Your task to perform on an android device: Open Youtube and go to the subscriptions tab Image 0: 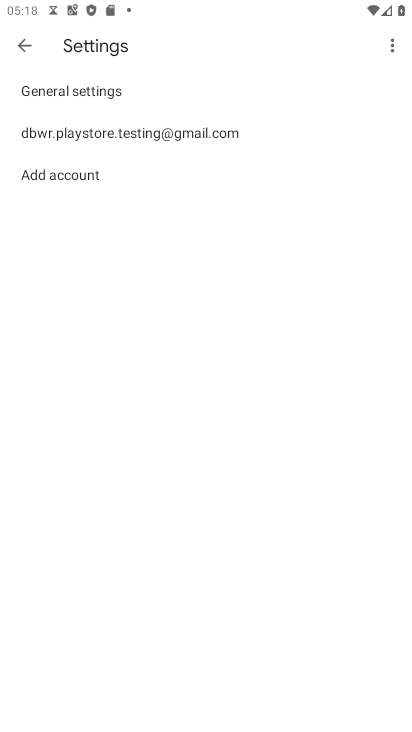
Step 0: press home button
Your task to perform on an android device: Open Youtube and go to the subscriptions tab Image 1: 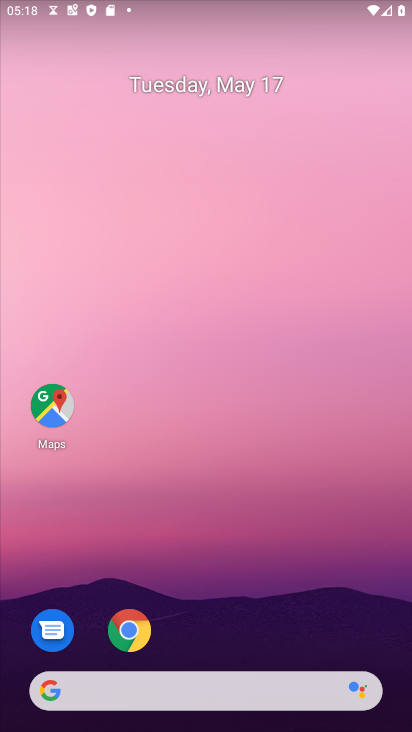
Step 1: drag from (272, 640) to (194, 95)
Your task to perform on an android device: Open Youtube and go to the subscriptions tab Image 2: 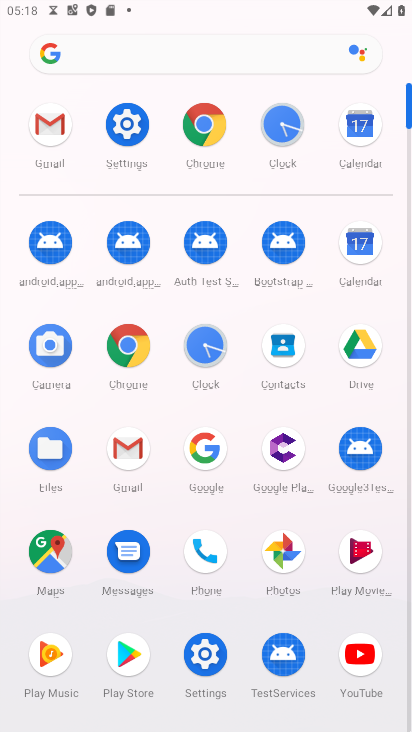
Step 2: click (362, 649)
Your task to perform on an android device: Open Youtube and go to the subscriptions tab Image 3: 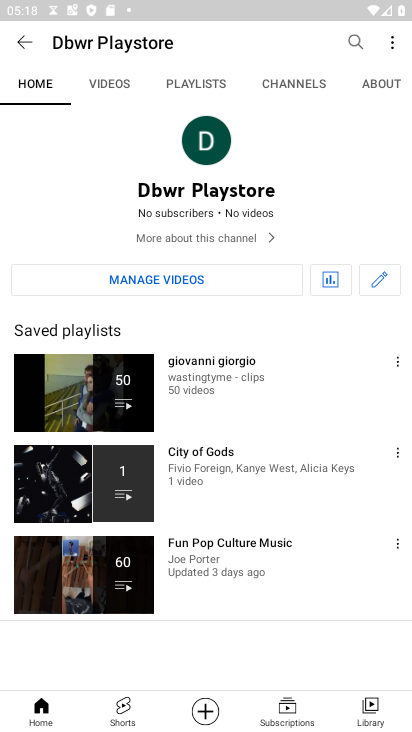
Step 3: click (284, 716)
Your task to perform on an android device: Open Youtube and go to the subscriptions tab Image 4: 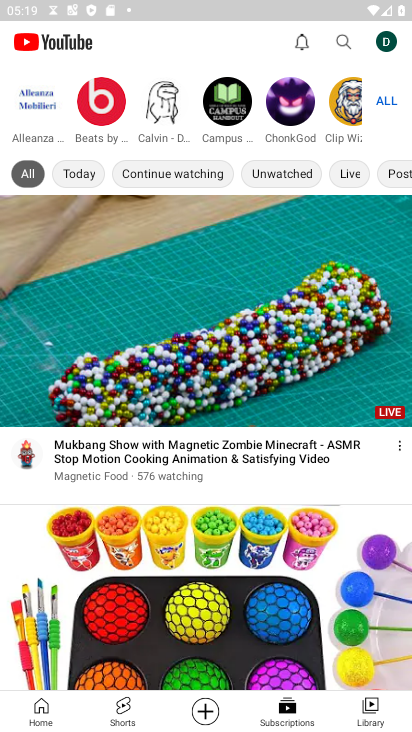
Step 4: task complete